Your task to perform on an android device: add a contact Image 0: 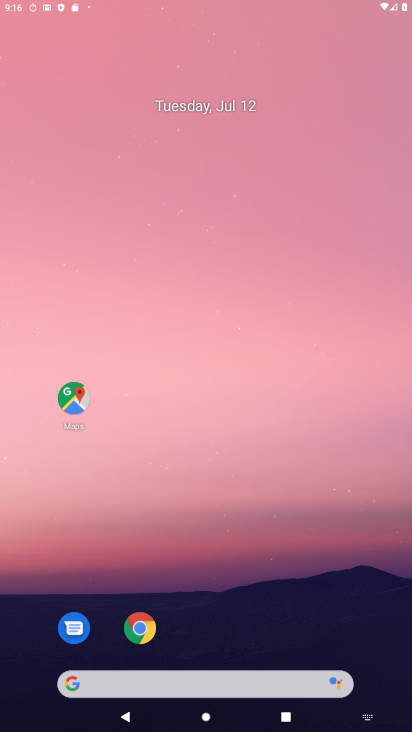
Step 0: click (346, 198)
Your task to perform on an android device: add a contact Image 1: 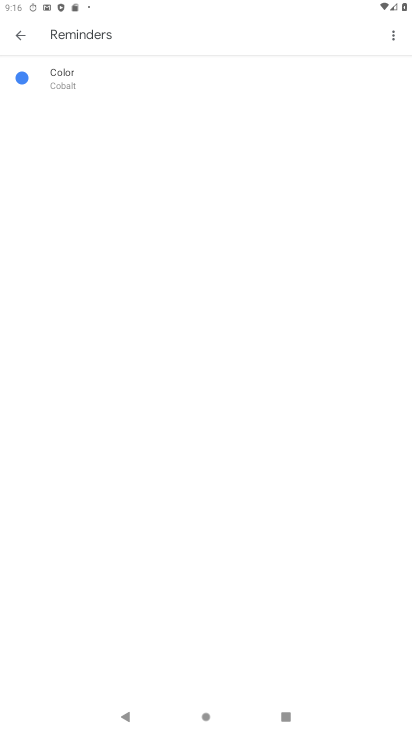
Step 1: click (26, 41)
Your task to perform on an android device: add a contact Image 2: 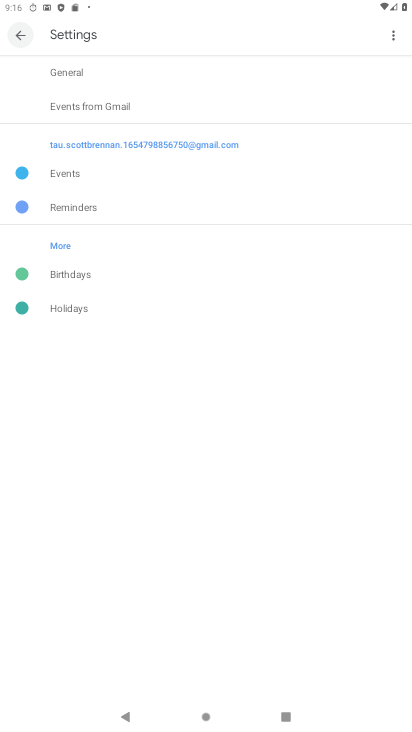
Step 2: click (25, 40)
Your task to perform on an android device: add a contact Image 3: 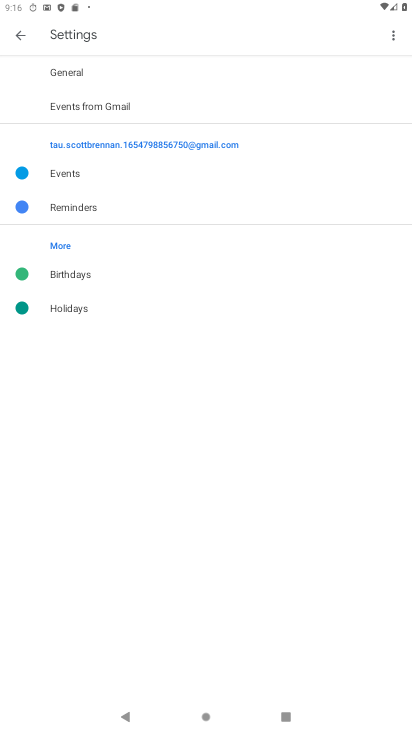
Step 3: click (25, 40)
Your task to perform on an android device: add a contact Image 4: 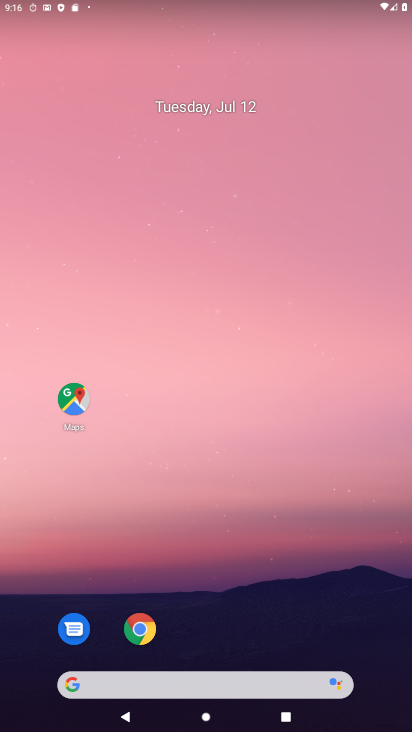
Step 4: drag from (294, 692) to (263, 160)
Your task to perform on an android device: add a contact Image 5: 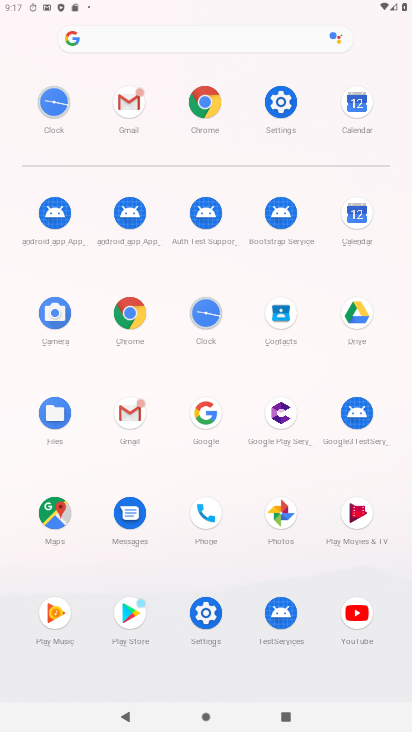
Step 5: click (281, 303)
Your task to perform on an android device: add a contact Image 6: 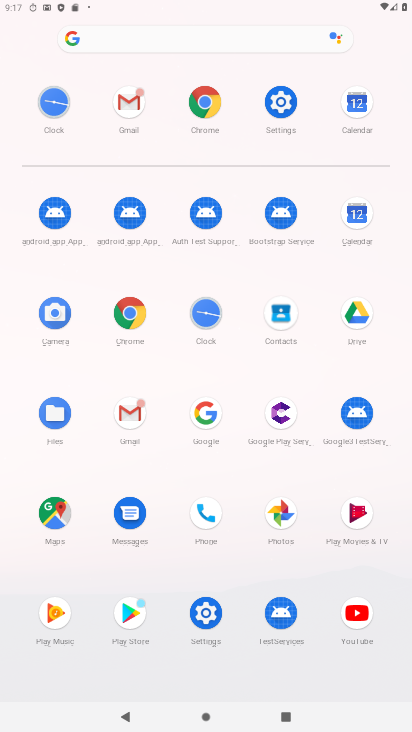
Step 6: click (284, 299)
Your task to perform on an android device: add a contact Image 7: 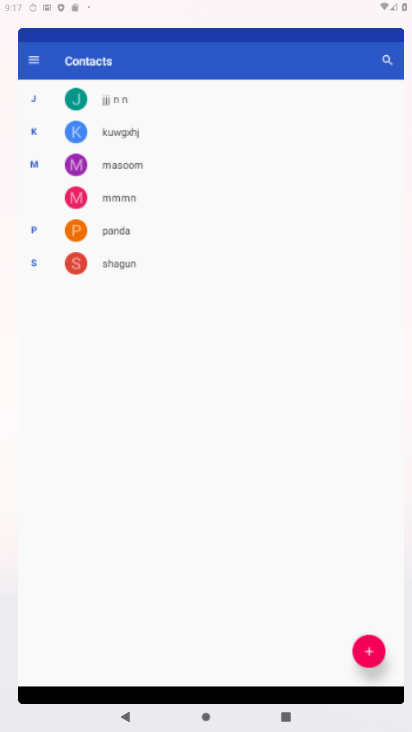
Step 7: click (285, 299)
Your task to perform on an android device: add a contact Image 8: 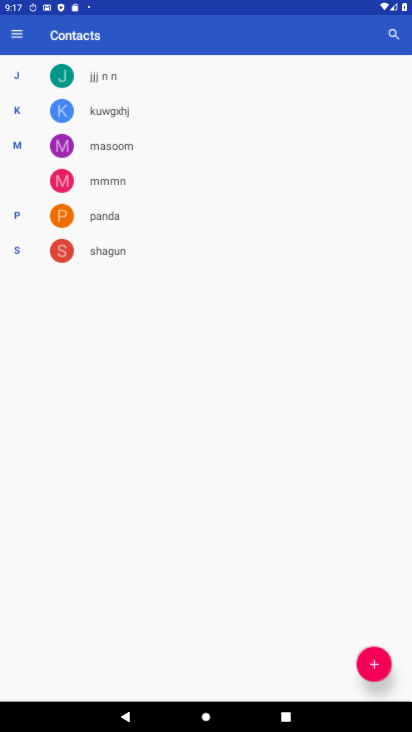
Step 8: click (286, 298)
Your task to perform on an android device: add a contact Image 9: 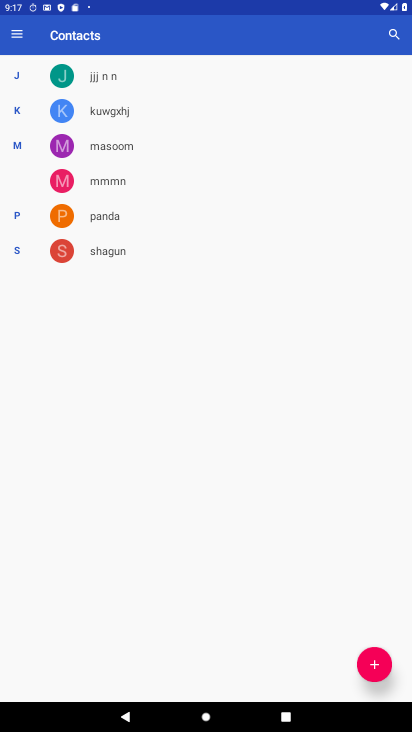
Step 9: click (286, 298)
Your task to perform on an android device: add a contact Image 10: 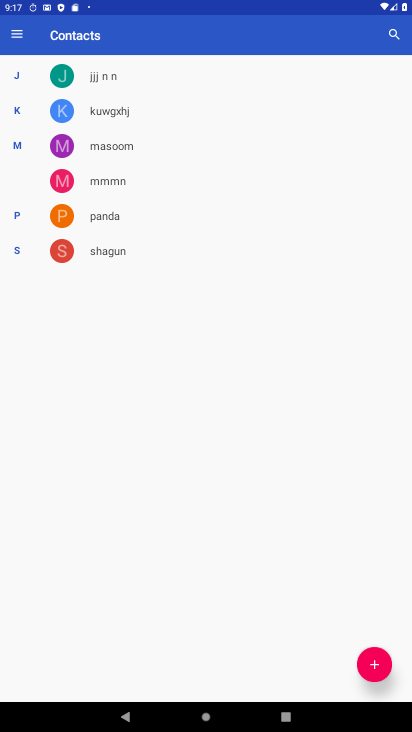
Step 10: click (377, 642)
Your task to perform on an android device: add a contact Image 11: 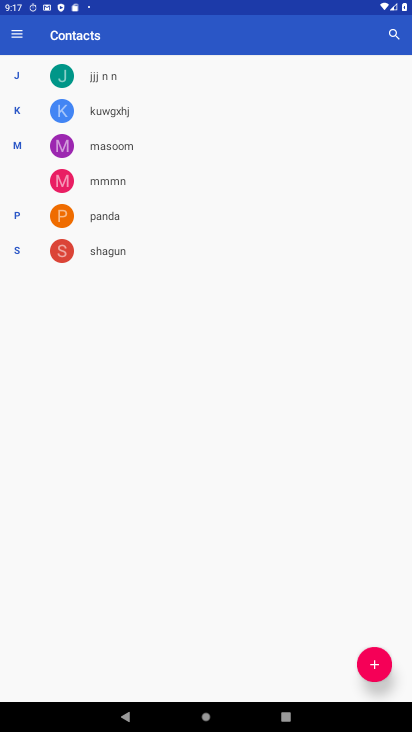
Step 11: click (374, 649)
Your task to perform on an android device: add a contact Image 12: 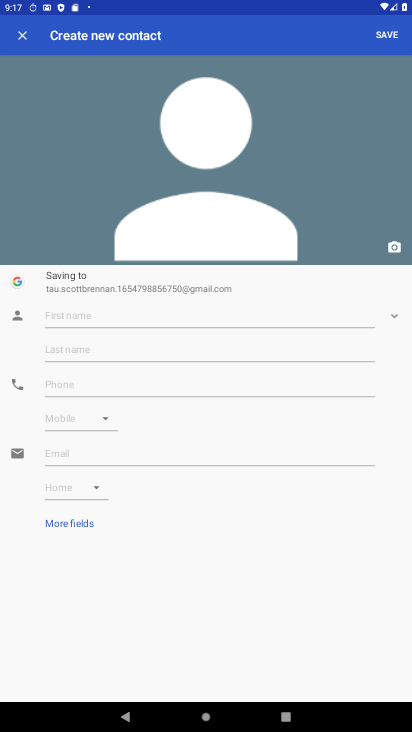
Step 12: click (69, 315)
Your task to perform on an android device: add a contact Image 13: 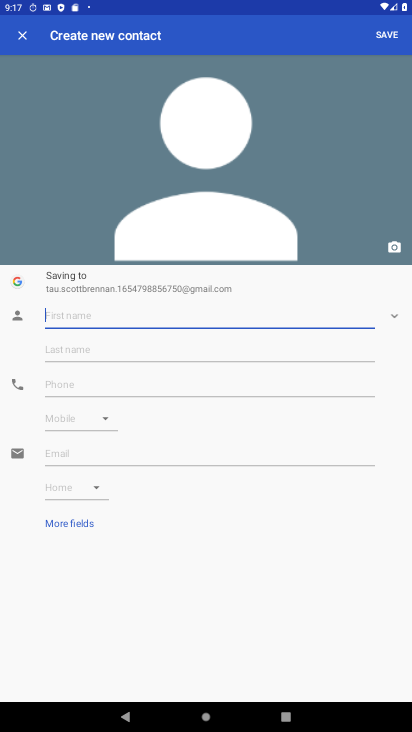
Step 13: click (69, 315)
Your task to perform on an android device: add a contact Image 14: 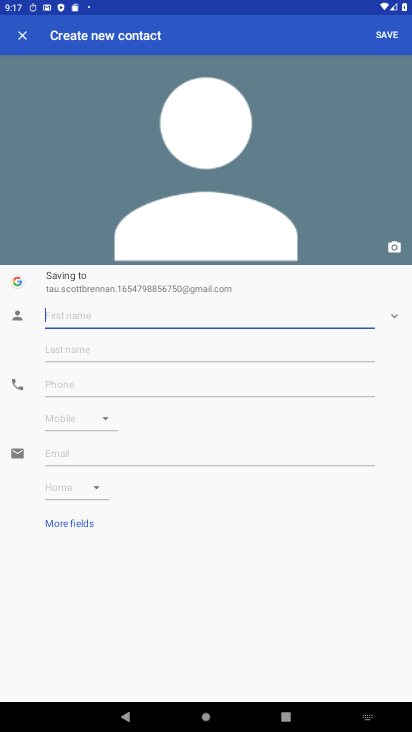
Step 14: click (69, 315)
Your task to perform on an android device: add a contact Image 15: 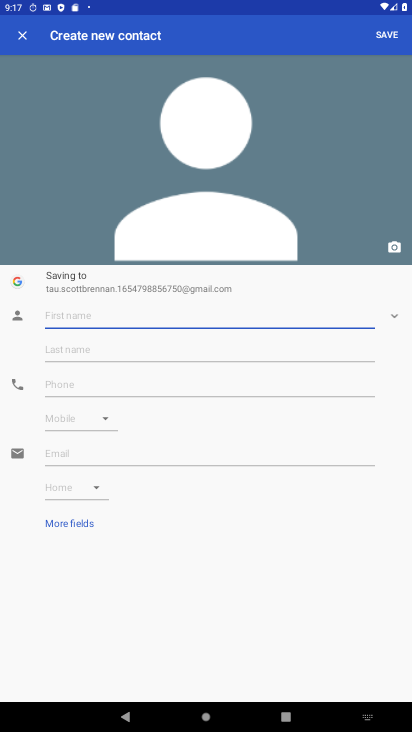
Step 15: click (69, 315)
Your task to perform on an android device: add a contact Image 16: 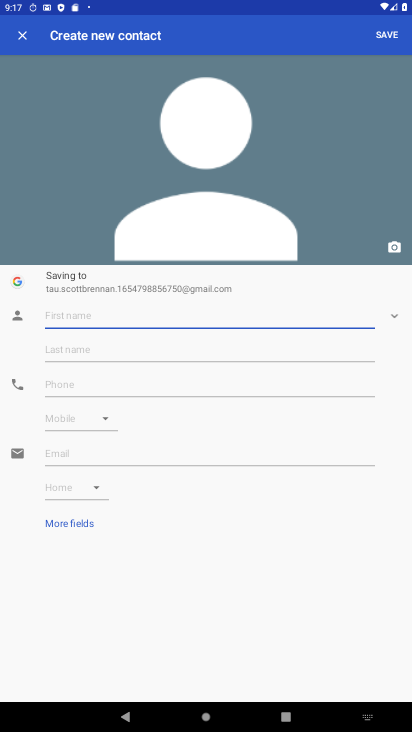
Step 16: type "suji"
Your task to perform on an android device: add a contact Image 17: 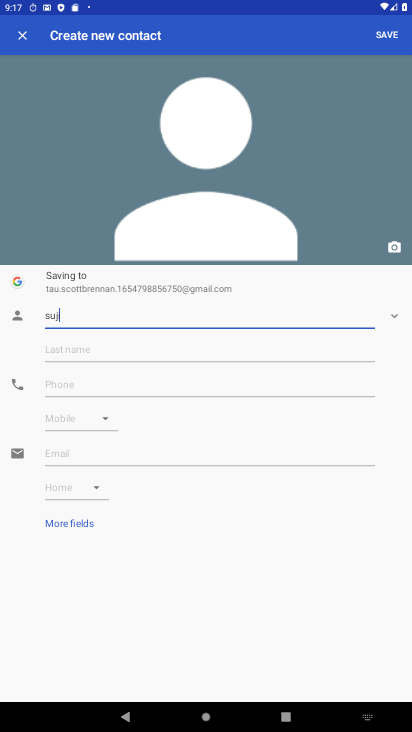
Step 17: click (73, 388)
Your task to perform on an android device: add a contact Image 18: 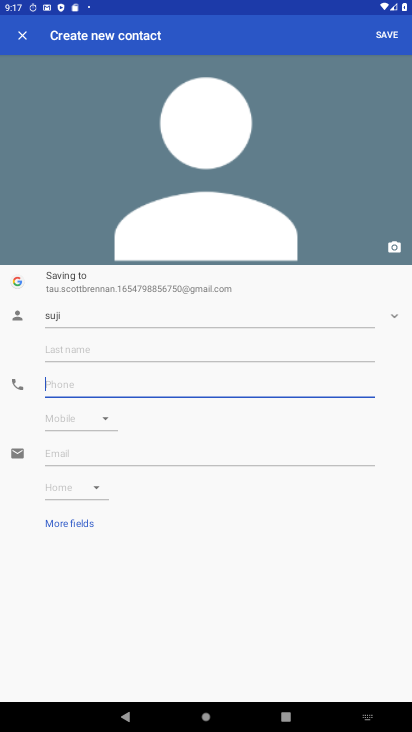
Step 18: click (73, 388)
Your task to perform on an android device: add a contact Image 19: 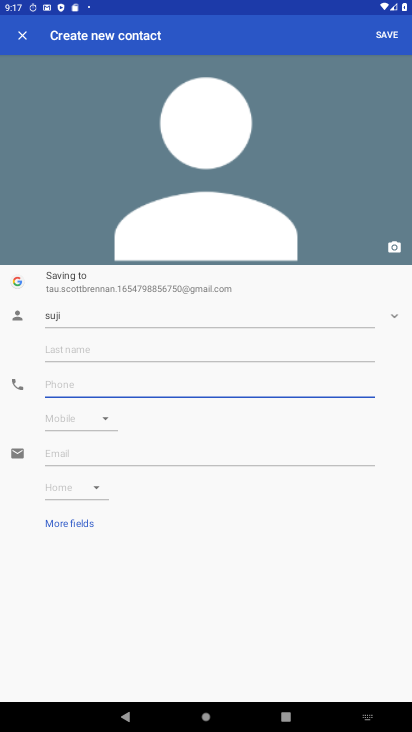
Step 19: click (73, 388)
Your task to perform on an android device: add a contact Image 20: 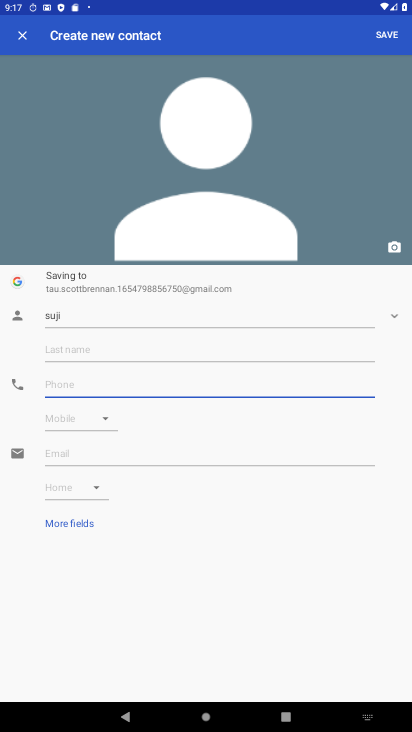
Step 20: type "79798728789274"
Your task to perform on an android device: add a contact Image 21: 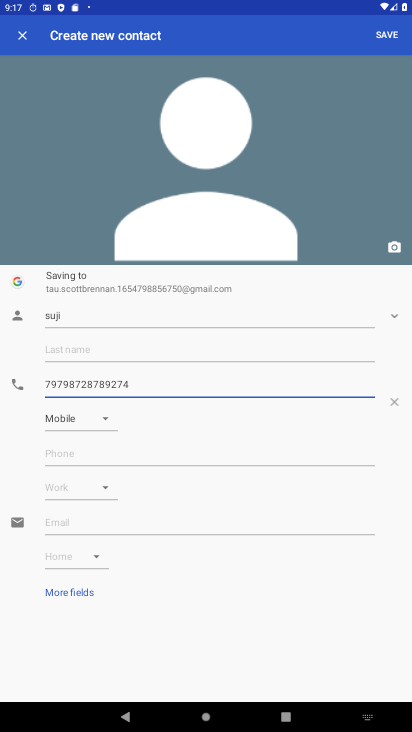
Step 21: click (388, 32)
Your task to perform on an android device: add a contact Image 22: 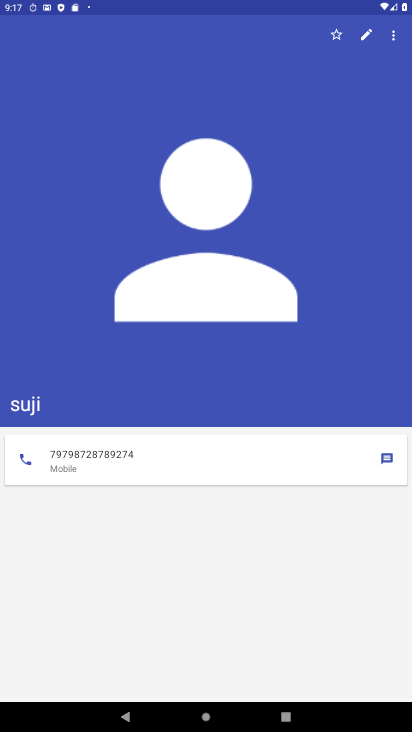
Step 22: task complete